Your task to perform on an android device: search for starred emails in the gmail app Image 0: 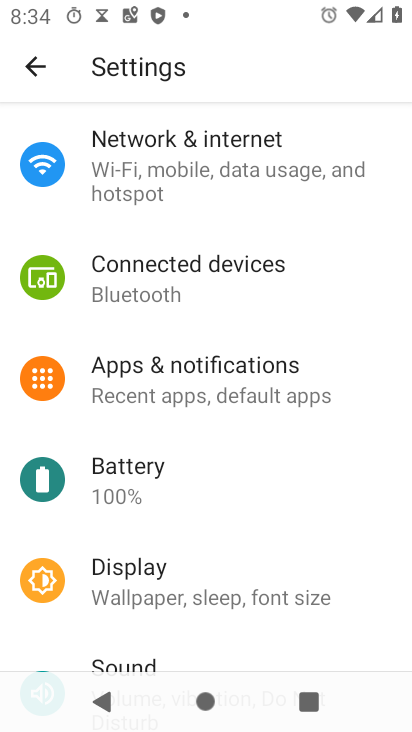
Step 0: press home button
Your task to perform on an android device: search for starred emails in the gmail app Image 1: 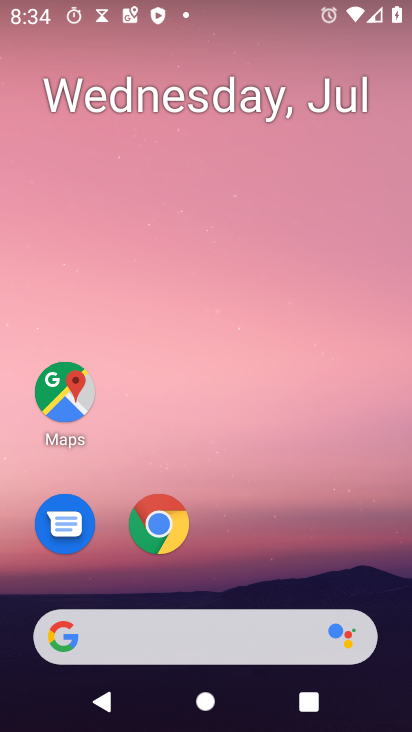
Step 1: drag from (230, 625) to (339, 45)
Your task to perform on an android device: search for starred emails in the gmail app Image 2: 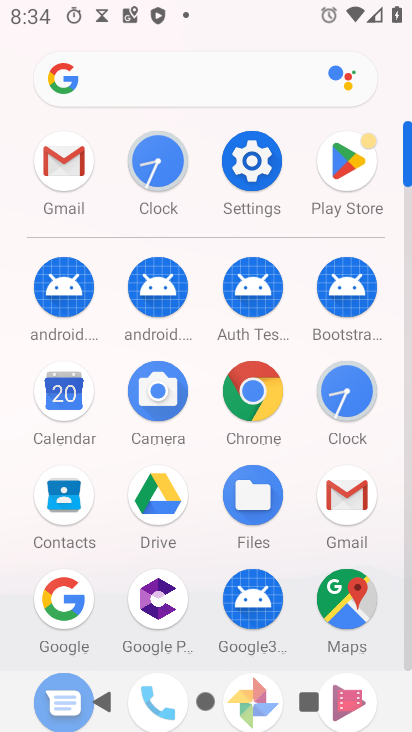
Step 2: click (68, 164)
Your task to perform on an android device: search for starred emails in the gmail app Image 3: 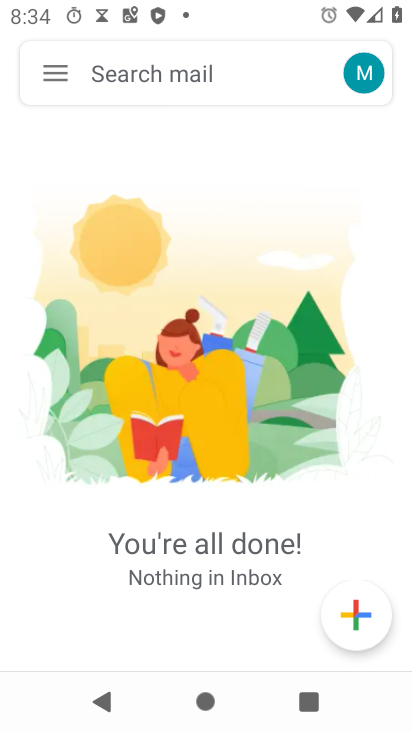
Step 3: click (61, 73)
Your task to perform on an android device: search for starred emails in the gmail app Image 4: 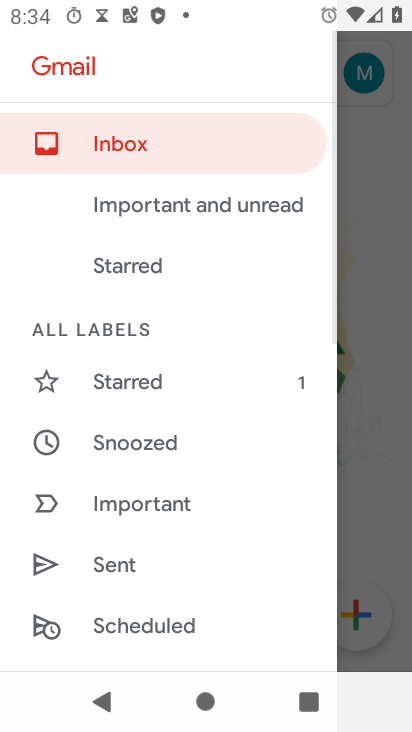
Step 4: click (129, 373)
Your task to perform on an android device: search for starred emails in the gmail app Image 5: 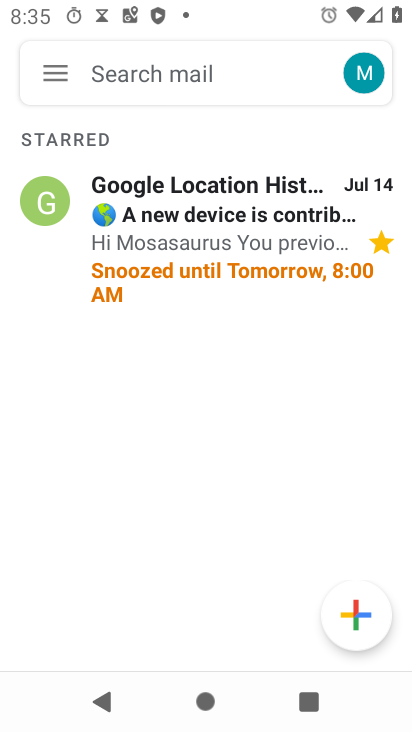
Step 5: task complete